Your task to perform on an android device: Open Reddit.com Image 0: 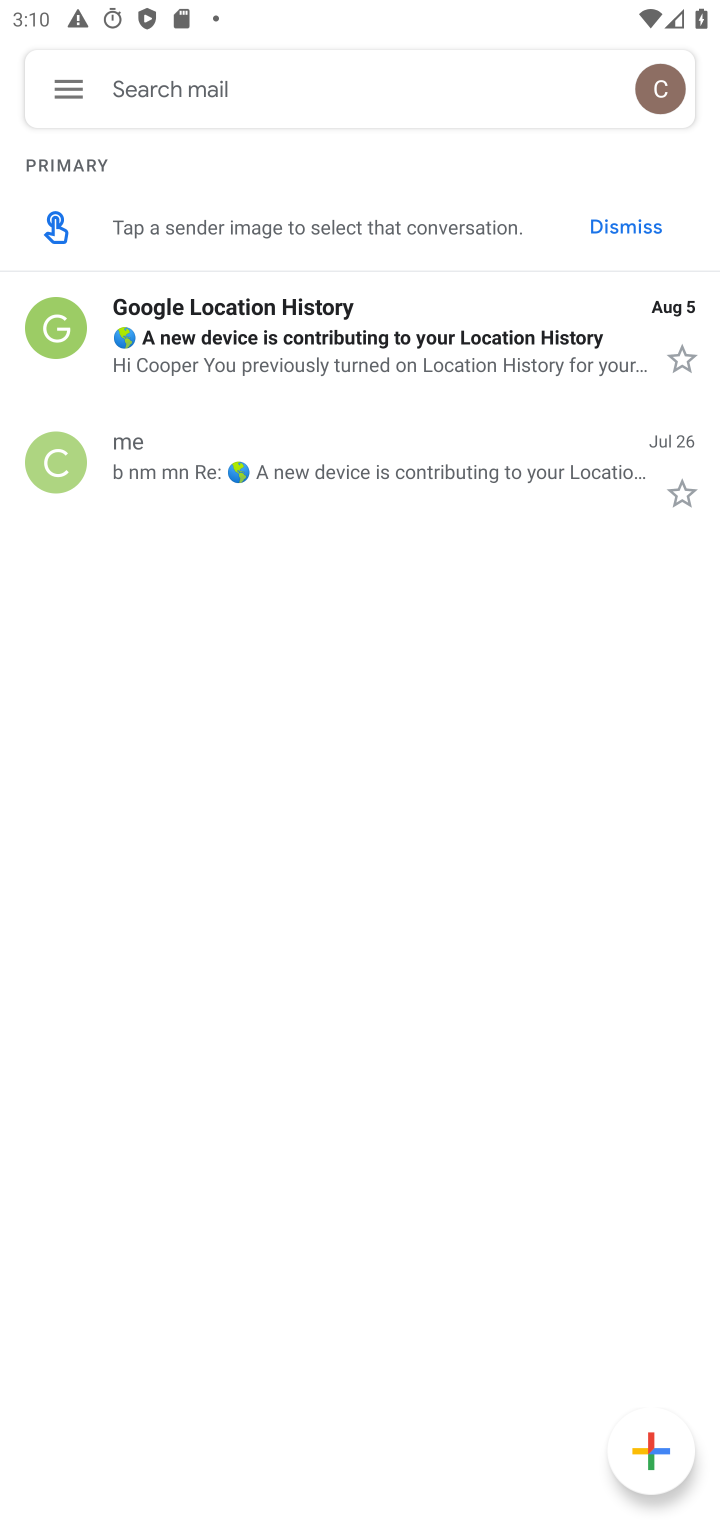
Step 0: press home button
Your task to perform on an android device: Open Reddit.com Image 1: 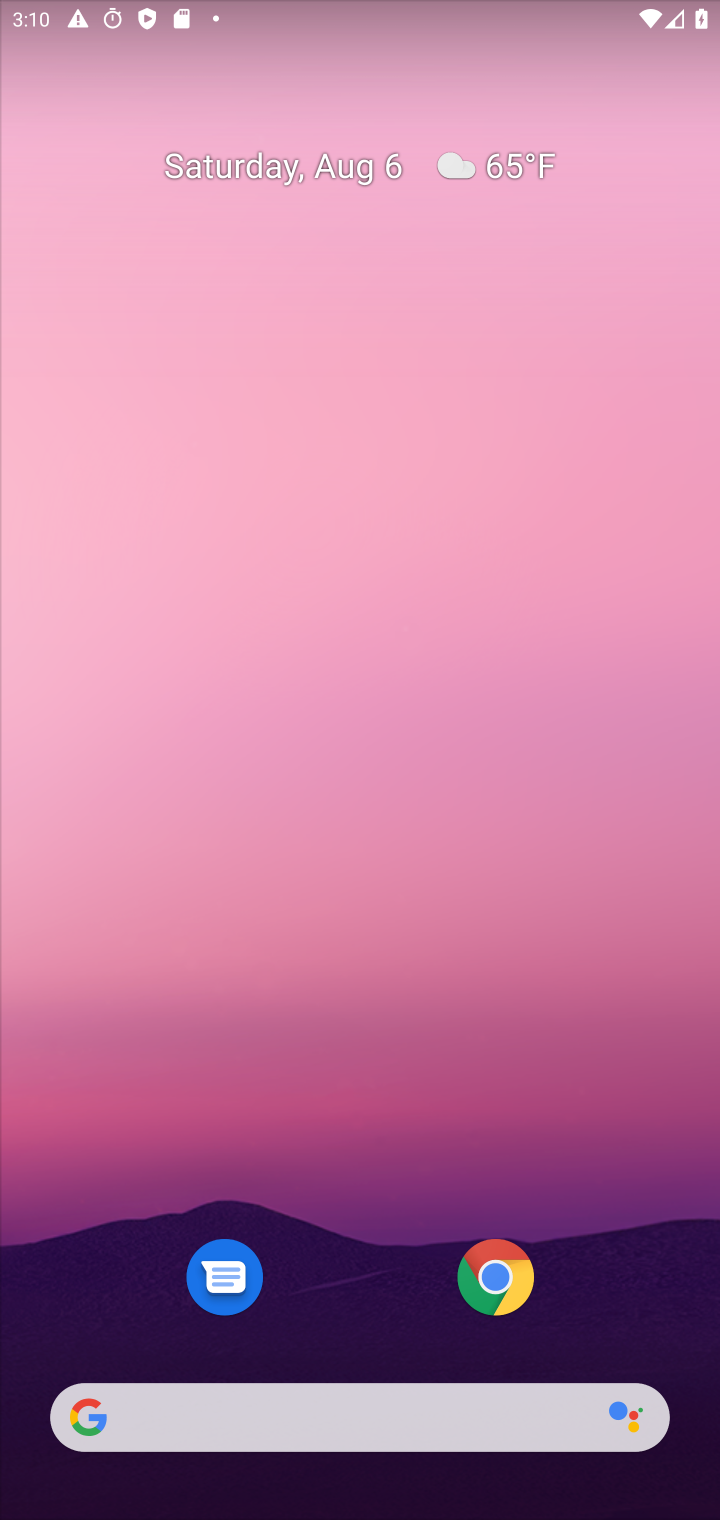
Step 1: drag from (299, 1394) to (460, 84)
Your task to perform on an android device: Open Reddit.com Image 2: 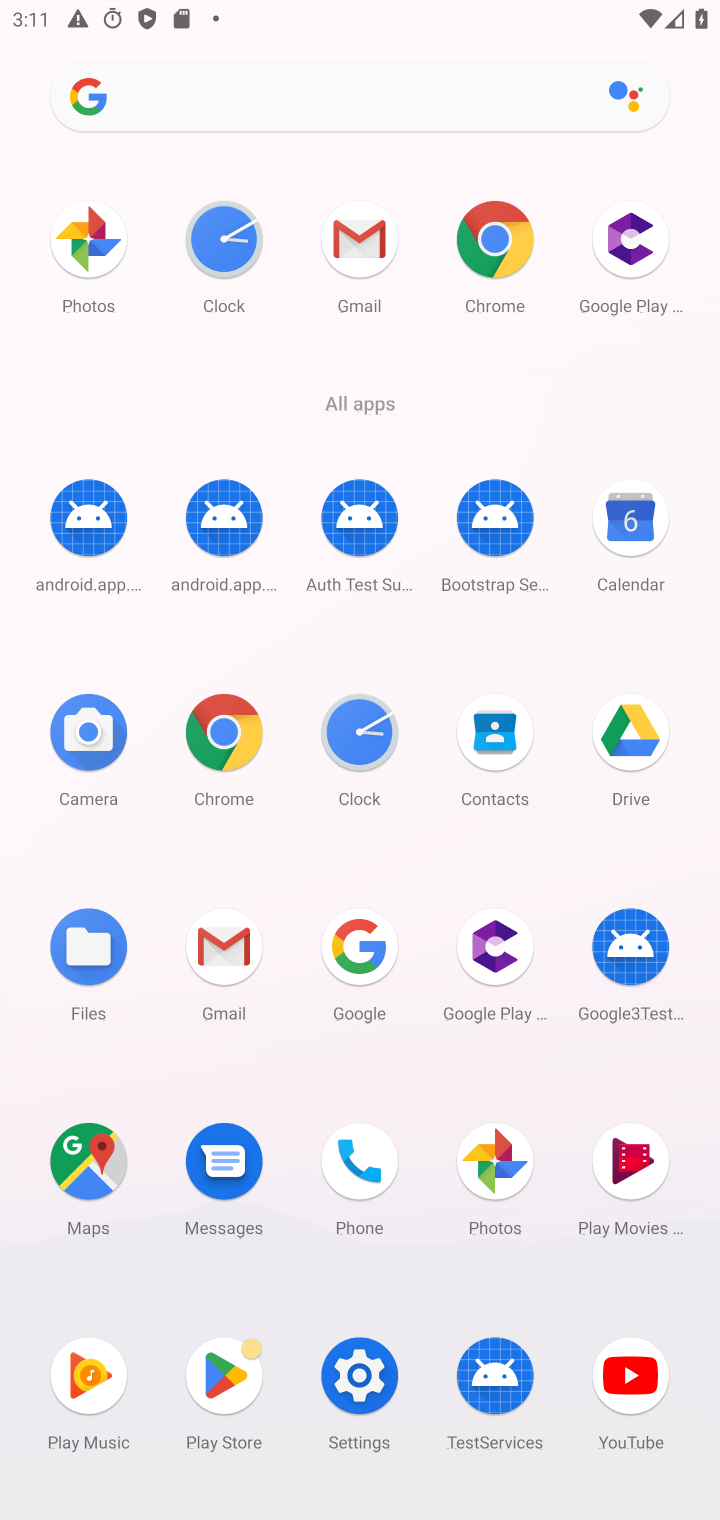
Step 2: click (216, 787)
Your task to perform on an android device: Open Reddit.com Image 3: 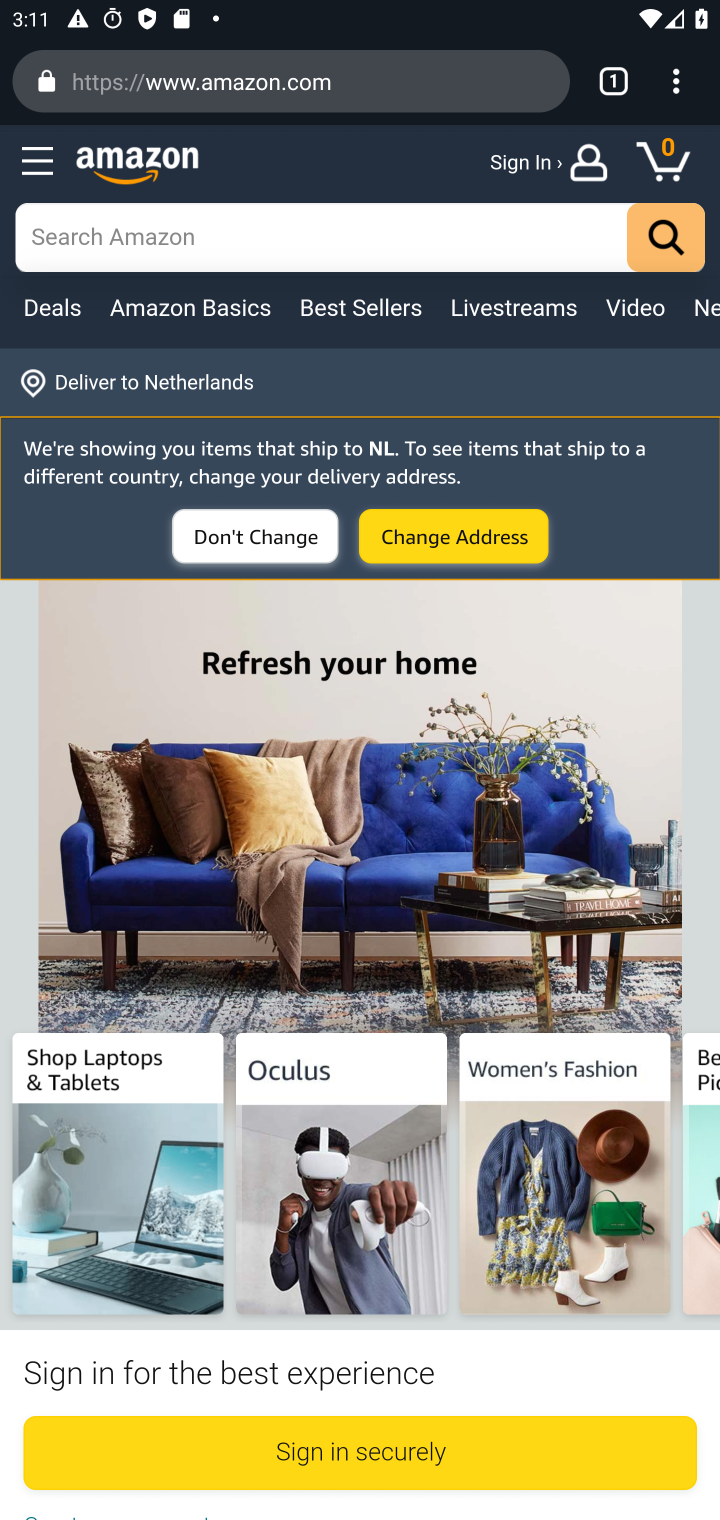
Step 3: click (680, 89)
Your task to perform on an android device: Open Reddit.com Image 4: 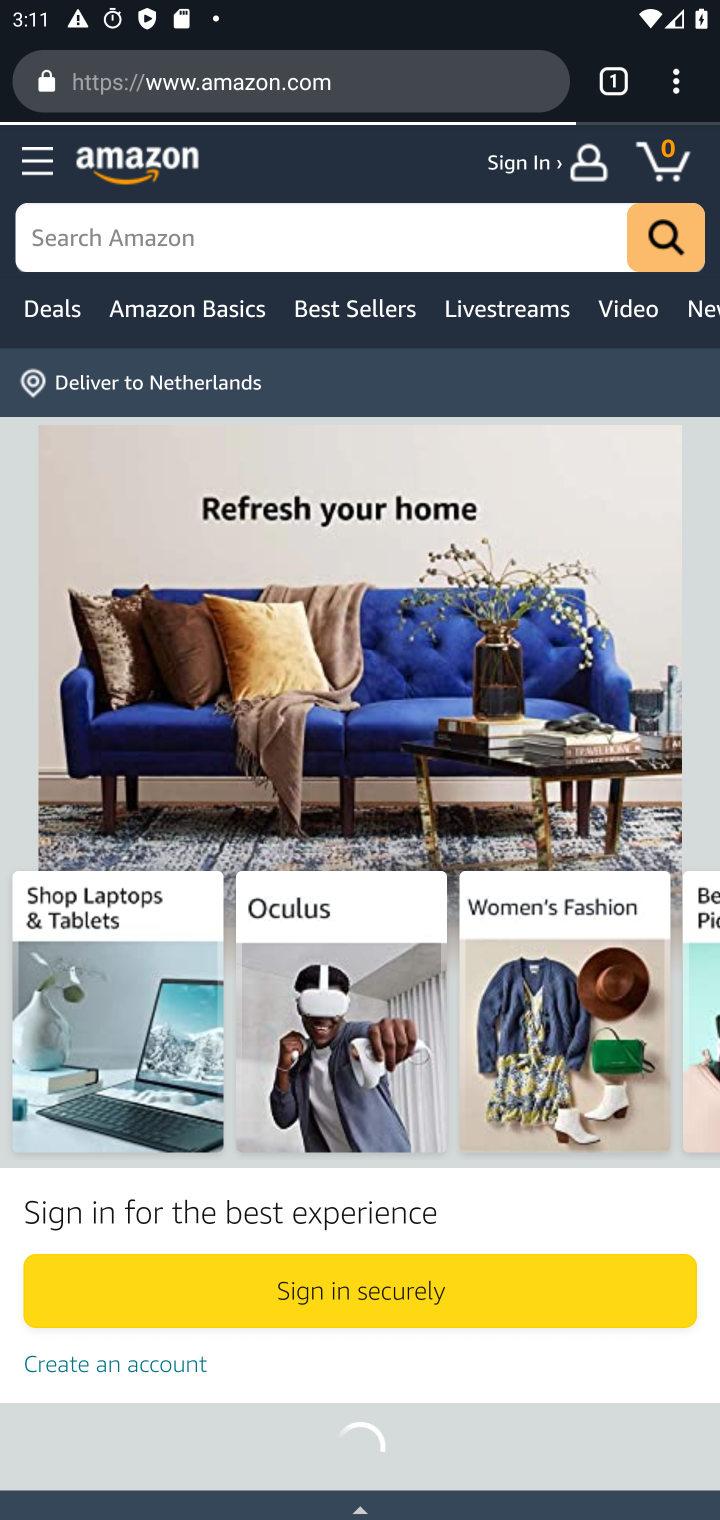
Step 4: click (360, 86)
Your task to perform on an android device: Open Reddit.com Image 5: 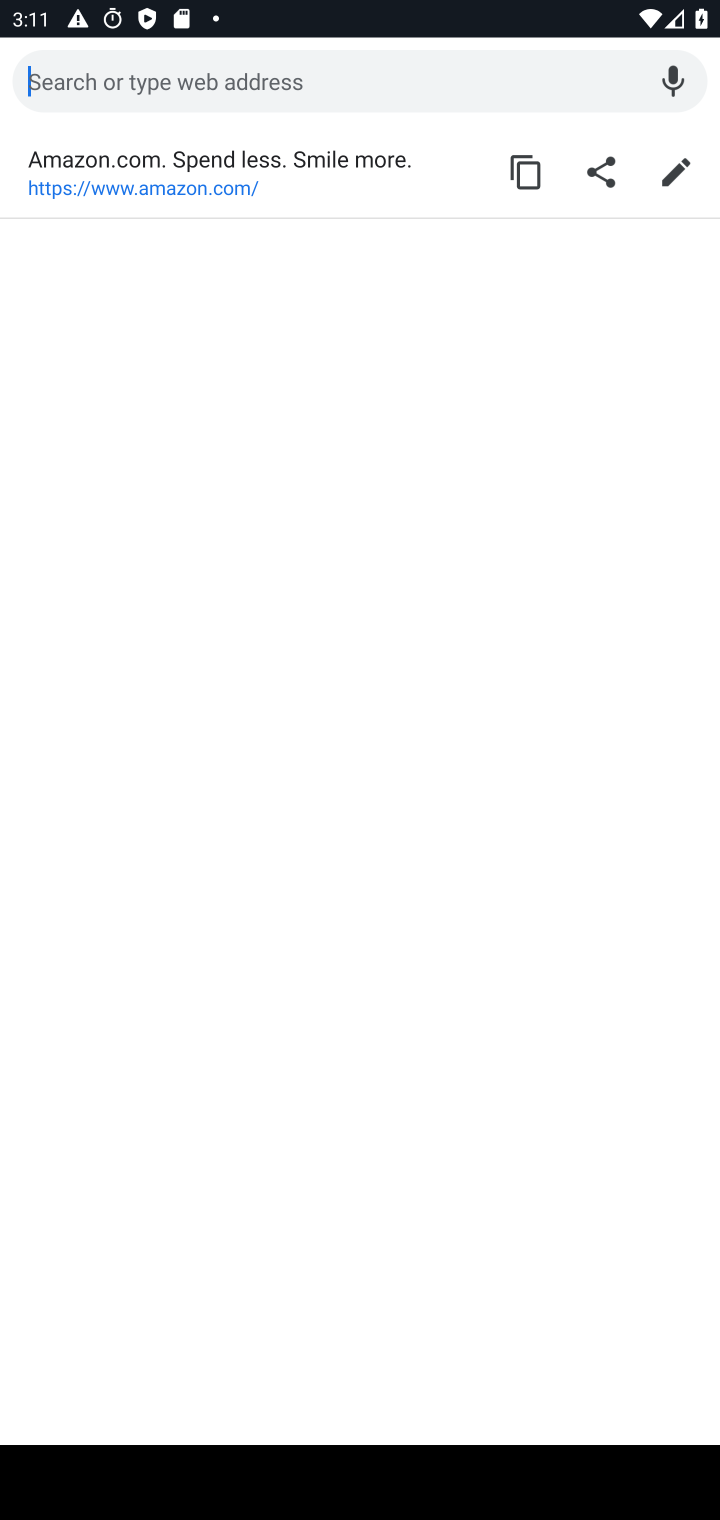
Step 5: type "reddit.com"
Your task to perform on an android device: Open Reddit.com Image 6: 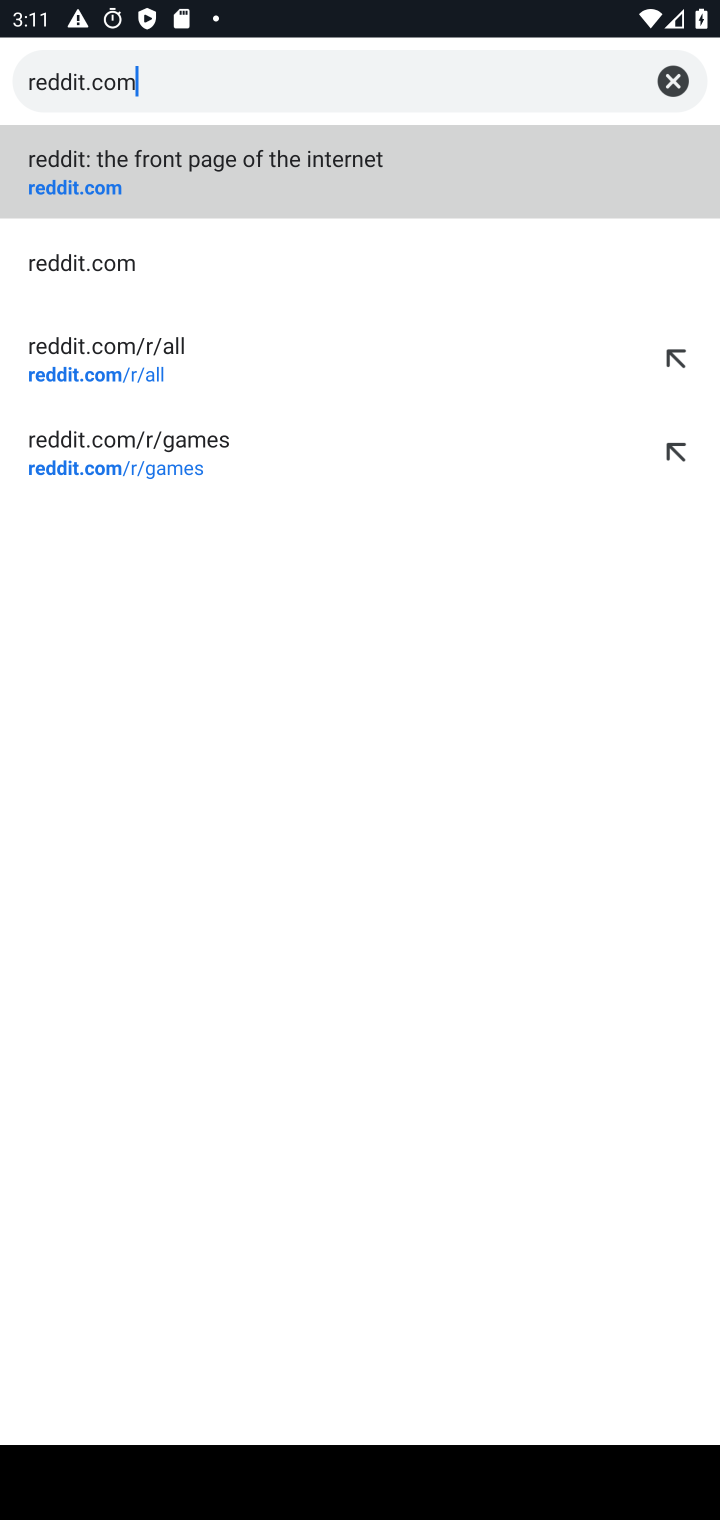
Step 6: click (457, 191)
Your task to perform on an android device: Open Reddit.com Image 7: 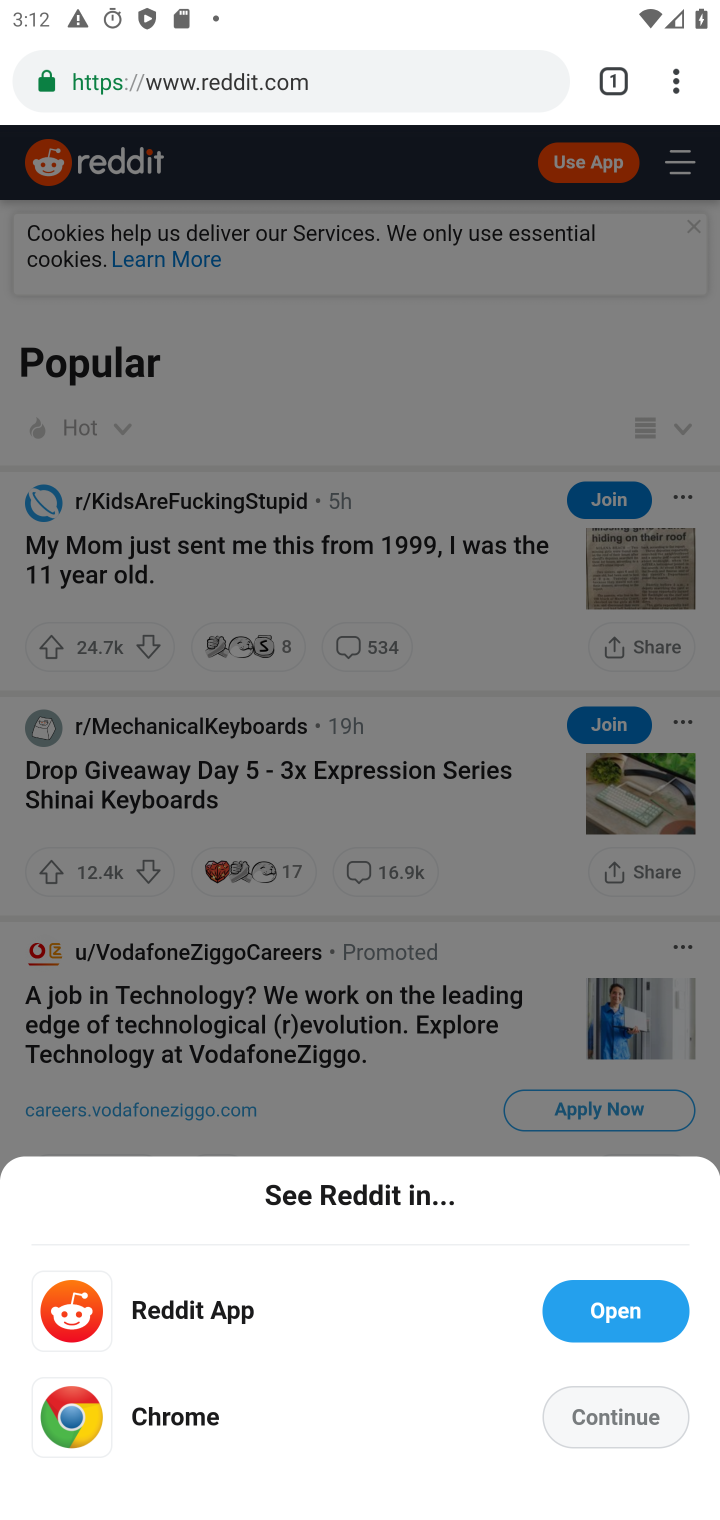
Step 7: task complete